Your task to perform on an android device: set the timer Image 0: 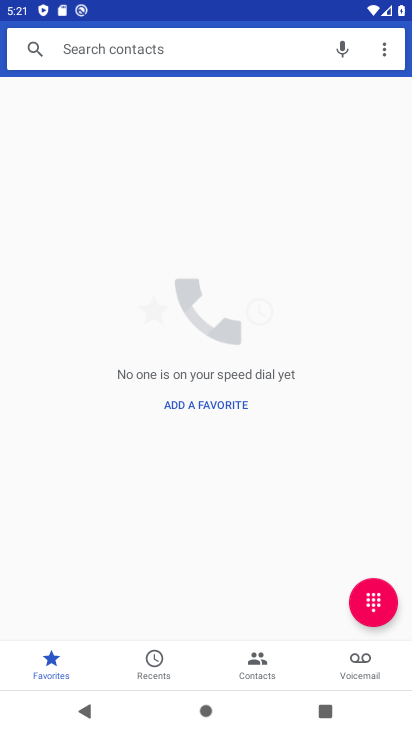
Step 0: press back button
Your task to perform on an android device: set the timer Image 1: 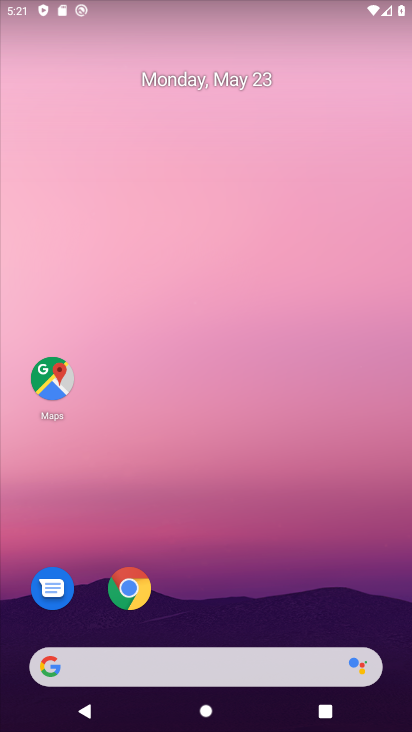
Step 1: drag from (237, 209) to (207, 0)
Your task to perform on an android device: set the timer Image 2: 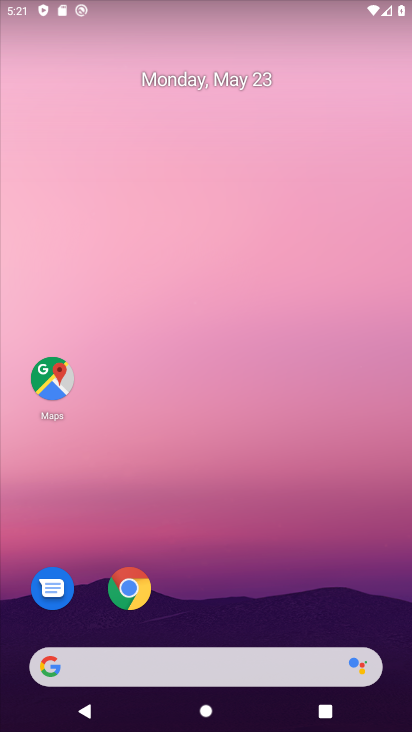
Step 2: click (222, 16)
Your task to perform on an android device: set the timer Image 3: 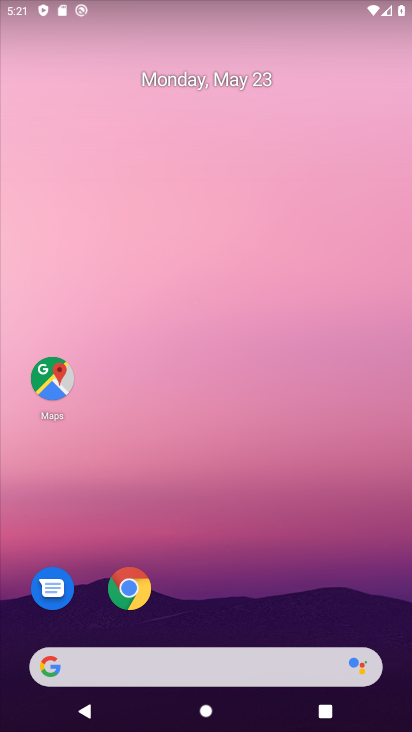
Step 3: drag from (263, 506) to (214, 31)
Your task to perform on an android device: set the timer Image 4: 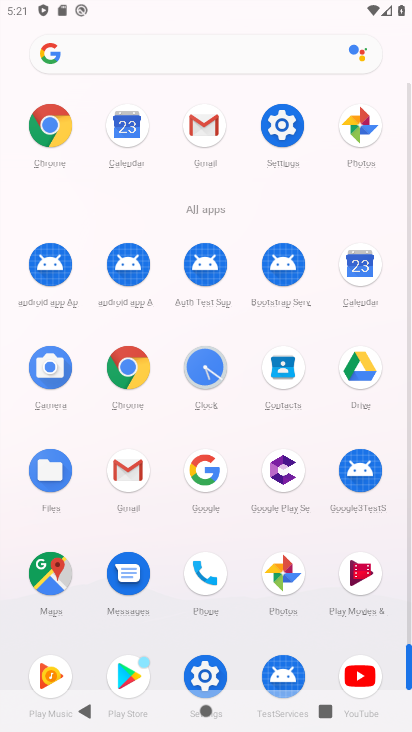
Step 4: drag from (21, 579) to (14, 264)
Your task to perform on an android device: set the timer Image 5: 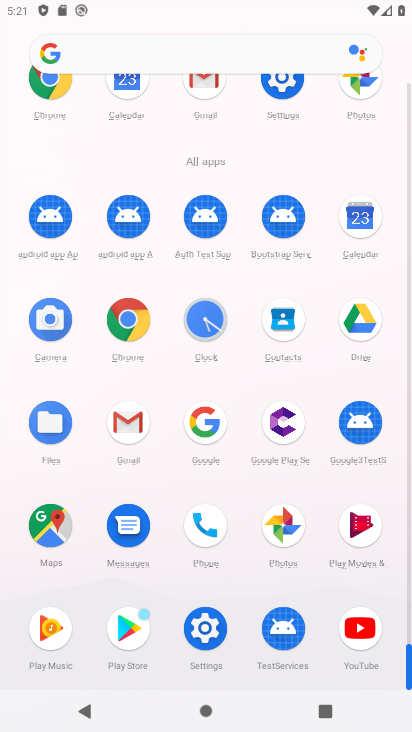
Step 5: click (201, 315)
Your task to perform on an android device: set the timer Image 6: 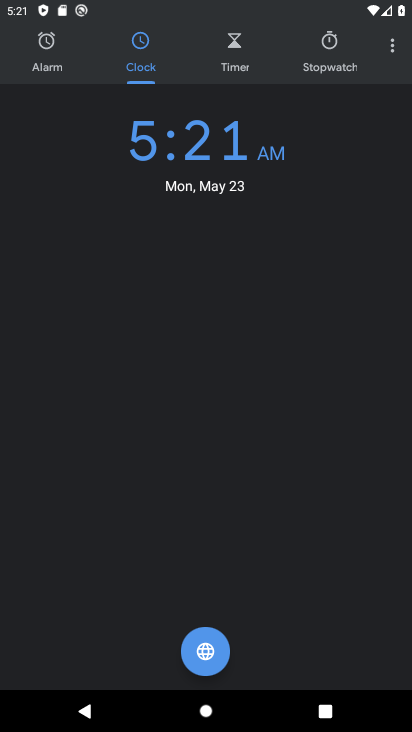
Step 6: click (49, 50)
Your task to perform on an android device: set the timer Image 7: 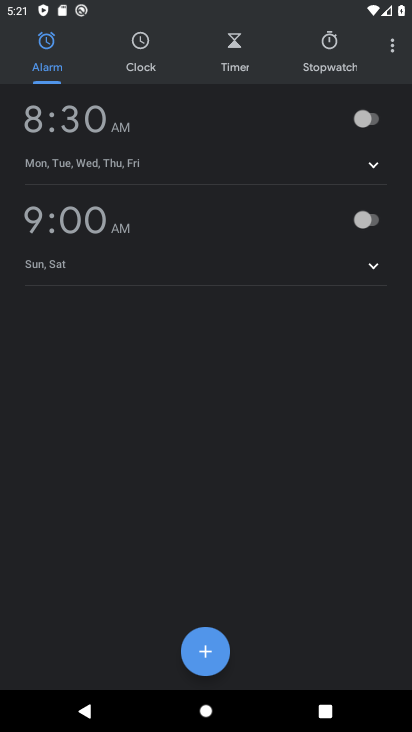
Step 7: click (214, 46)
Your task to perform on an android device: set the timer Image 8: 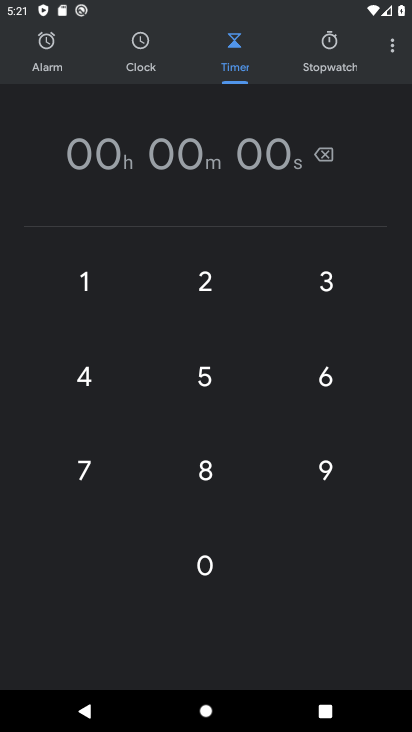
Step 8: click (201, 283)
Your task to perform on an android device: set the timer Image 9: 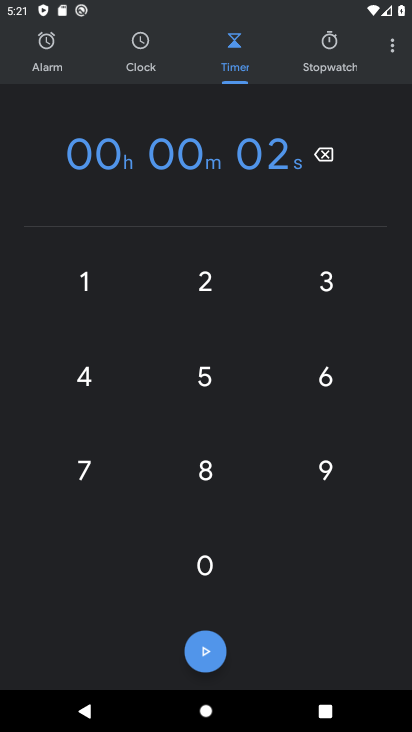
Step 9: click (212, 380)
Your task to perform on an android device: set the timer Image 10: 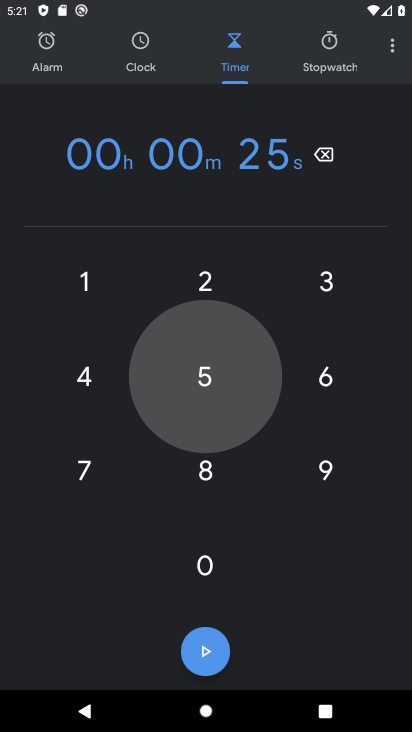
Step 10: click (204, 461)
Your task to perform on an android device: set the timer Image 11: 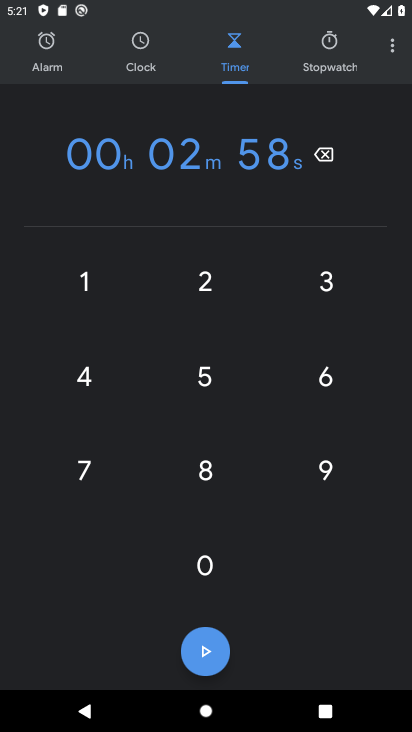
Step 11: click (213, 648)
Your task to perform on an android device: set the timer Image 12: 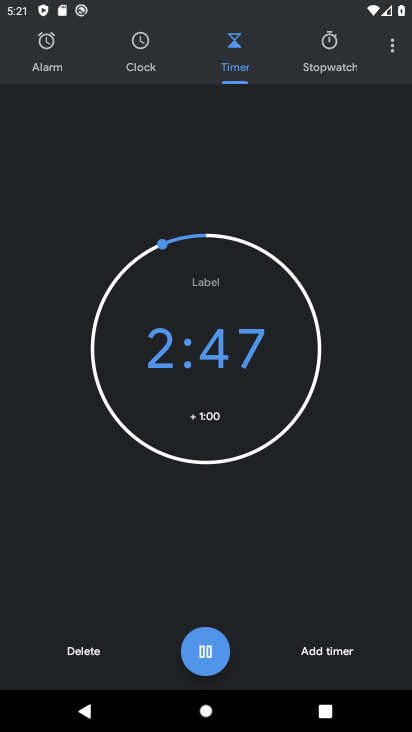
Step 12: task complete